Your task to perform on an android device: Do I have any events tomorrow? Image 0: 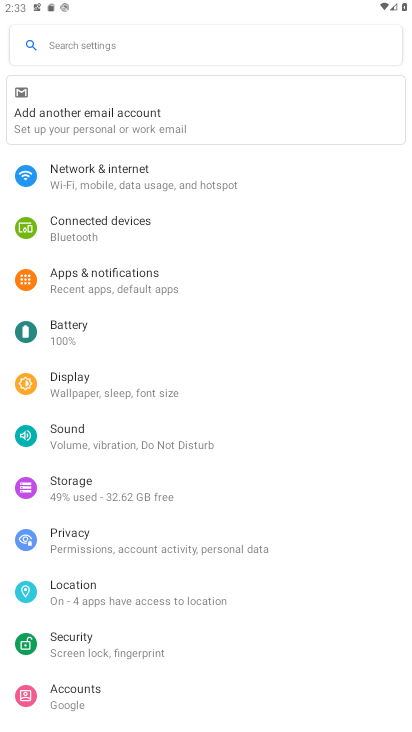
Step 0: press home button
Your task to perform on an android device: Do I have any events tomorrow? Image 1: 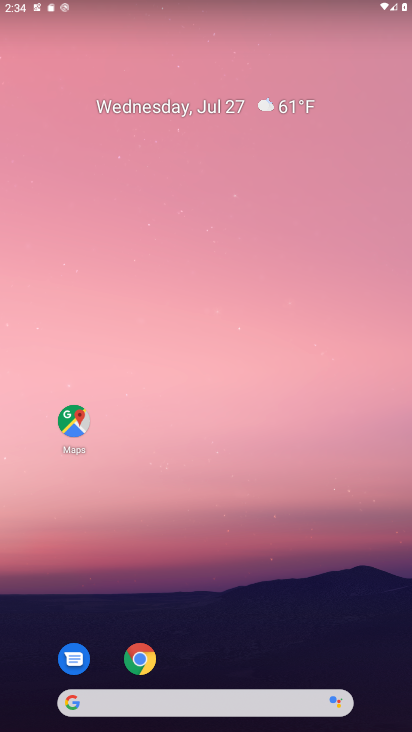
Step 1: drag from (189, 279) to (180, 153)
Your task to perform on an android device: Do I have any events tomorrow? Image 2: 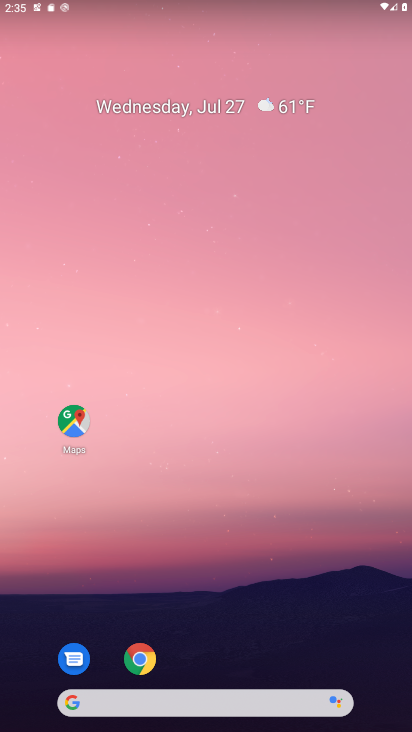
Step 2: drag from (297, 133) to (338, 6)
Your task to perform on an android device: Do I have any events tomorrow? Image 3: 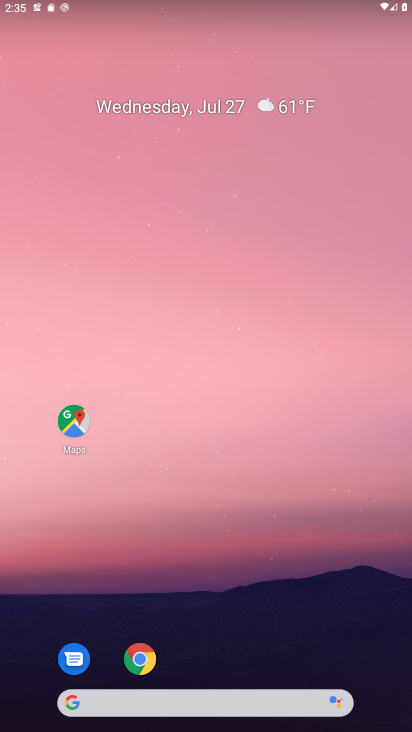
Step 3: drag from (196, 703) to (227, 193)
Your task to perform on an android device: Do I have any events tomorrow? Image 4: 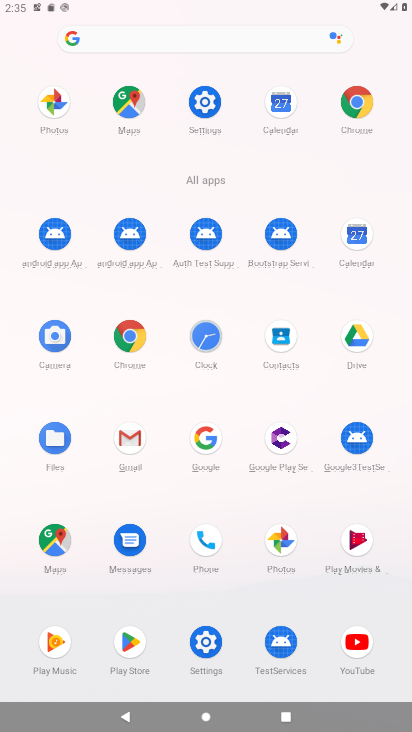
Step 4: click (371, 236)
Your task to perform on an android device: Do I have any events tomorrow? Image 5: 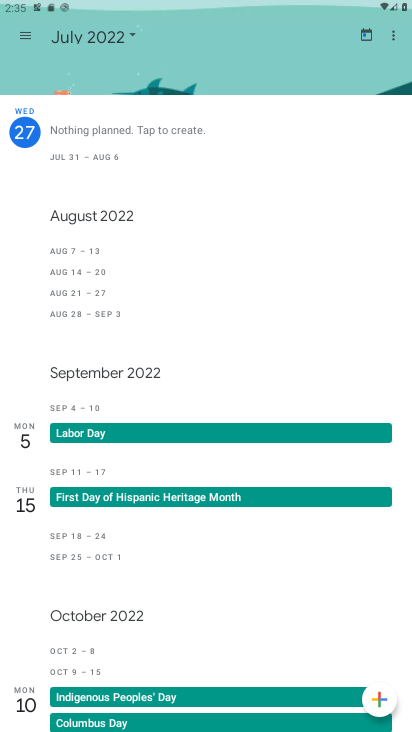
Step 5: click (122, 32)
Your task to perform on an android device: Do I have any events tomorrow? Image 6: 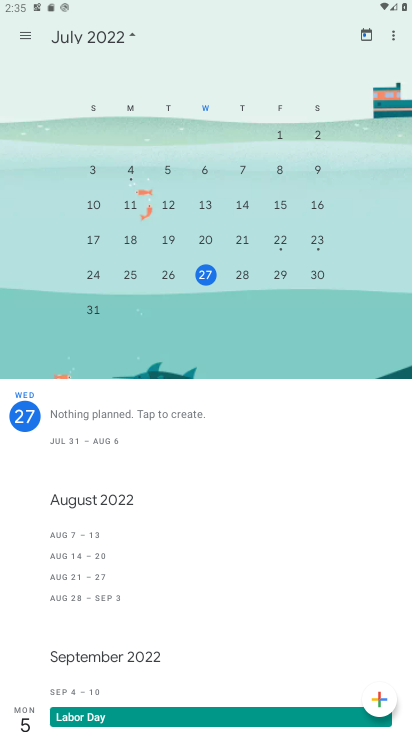
Step 6: click (241, 280)
Your task to perform on an android device: Do I have any events tomorrow? Image 7: 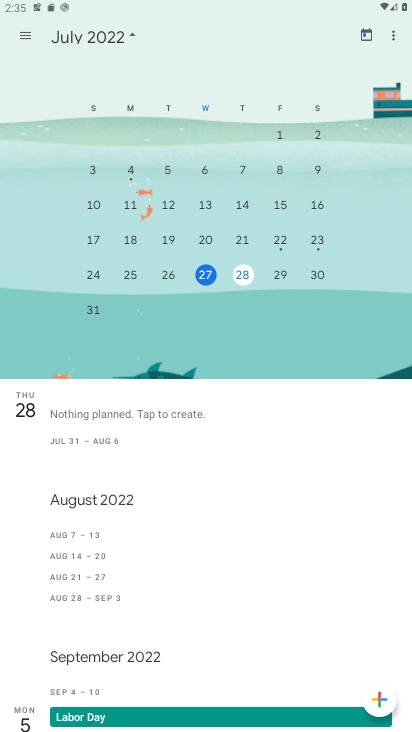
Step 7: task complete